Your task to perform on an android device: Go to Amazon Image 0: 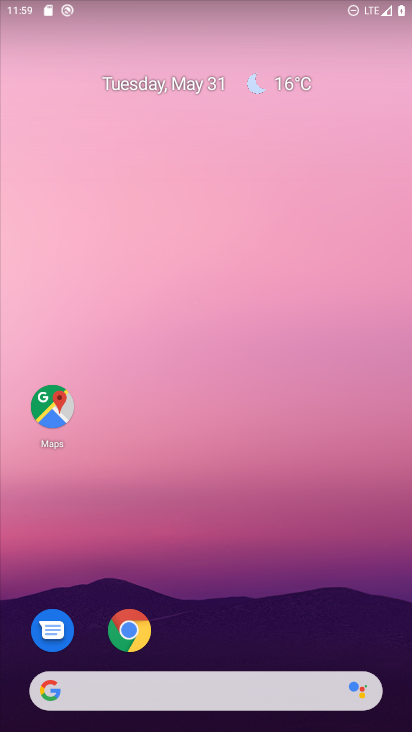
Step 0: drag from (288, 579) to (289, 34)
Your task to perform on an android device: Go to Amazon Image 1: 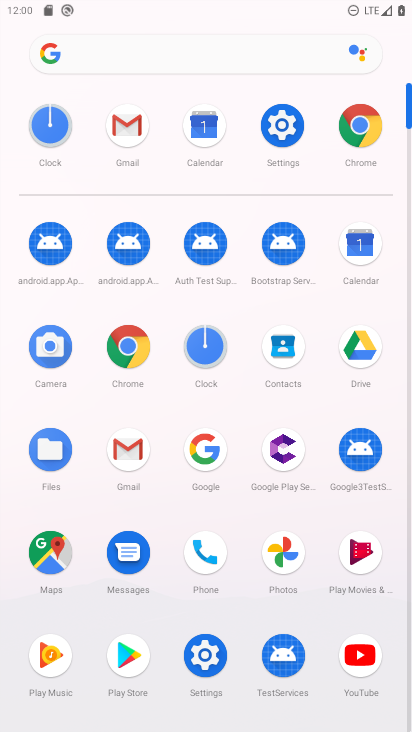
Step 1: click (360, 126)
Your task to perform on an android device: Go to Amazon Image 2: 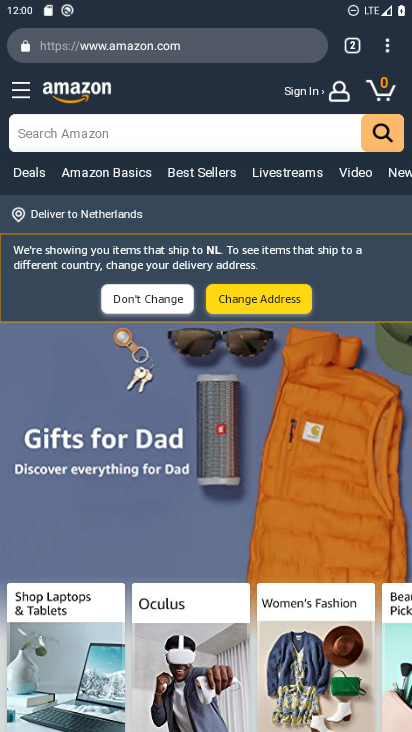
Step 2: task complete